Your task to perform on an android device: toggle priority inbox in the gmail app Image 0: 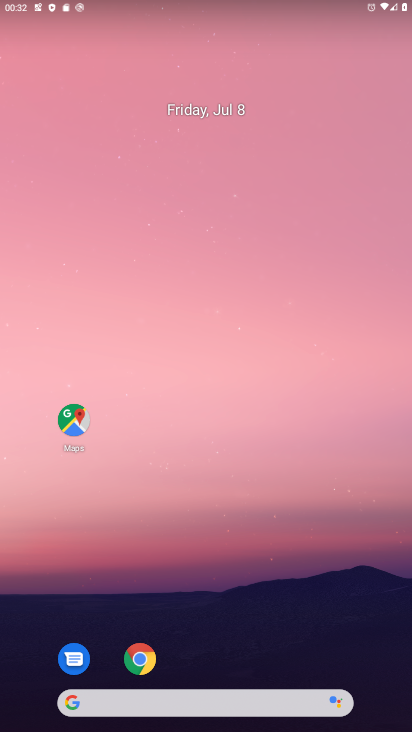
Step 0: drag from (276, 247) to (264, 106)
Your task to perform on an android device: toggle priority inbox in the gmail app Image 1: 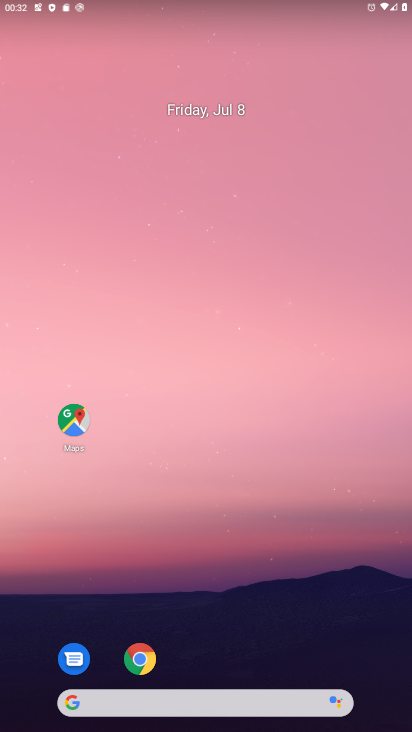
Step 1: drag from (218, 667) to (229, 58)
Your task to perform on an android device: toggle priority inbox in the gmail app Image 2: 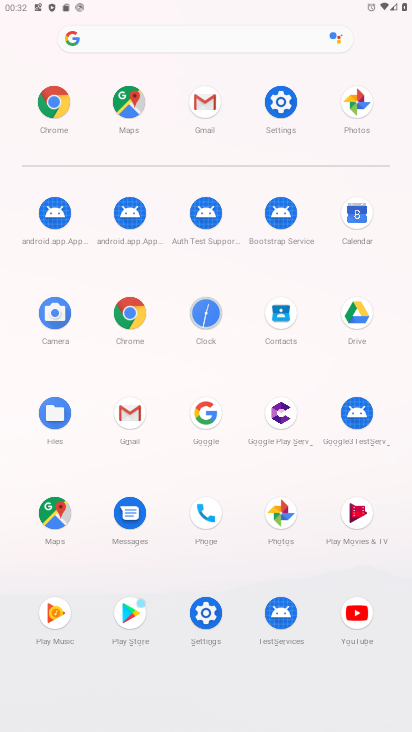
Step 2: click (207, 117)
Your task to perform on an android device: toggle priority inbox in the gmail app Image 3: 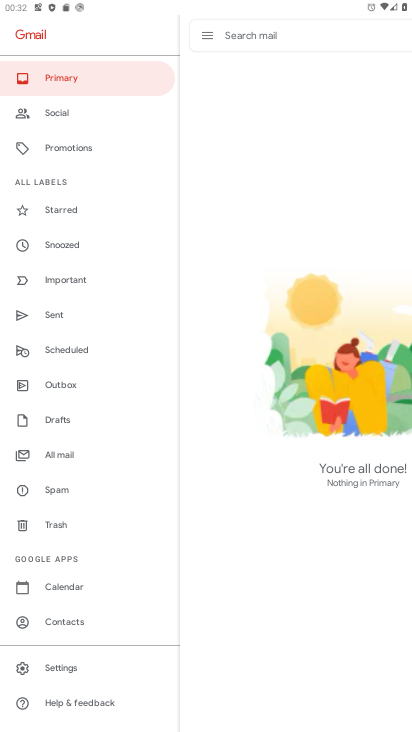
Step 3: click (63, 675)
Your task to perform on an android device: toggle priority inbox in the gmail app Image 4: 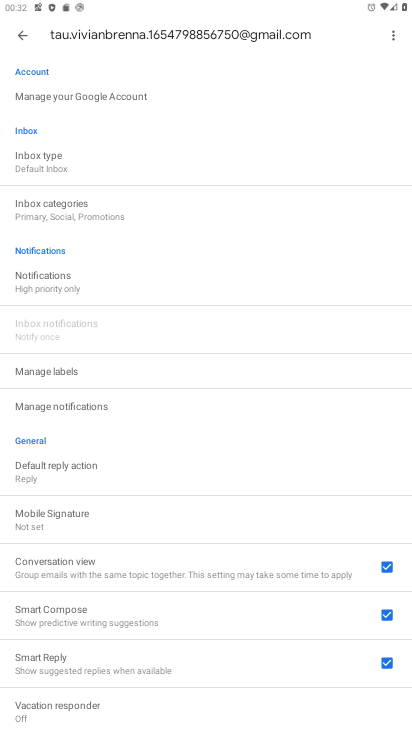
Step 4: click (170, 164)
Your task to perform on an android device: toggle priority inbox in the gmail app Image 5: 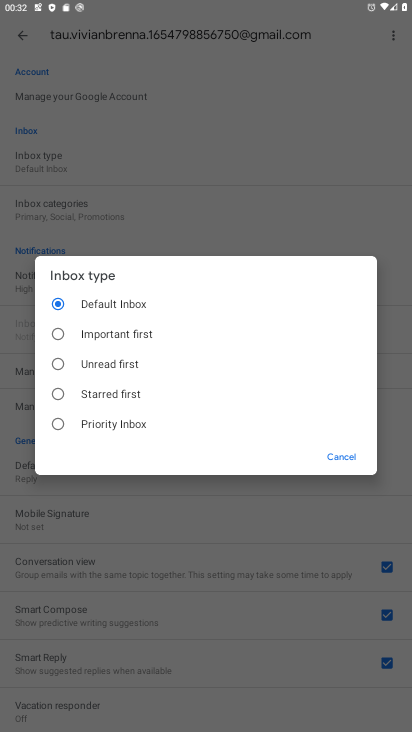
Step 5: click (124, 404)
Your task to perform on an android device: toggle priority inbox in the gmail app Image 6: 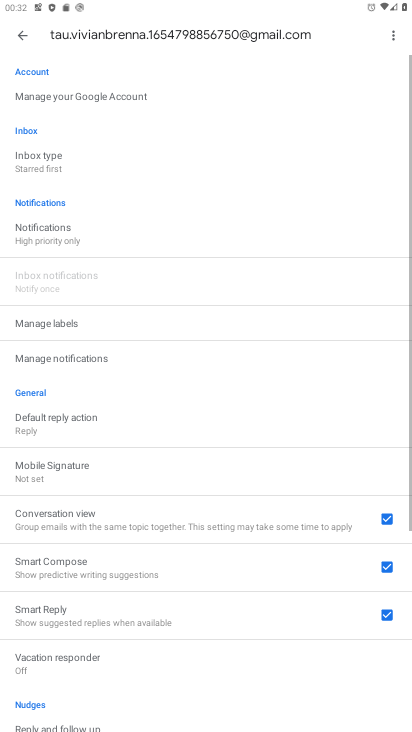
Step 6: task complete